Your task to perform on an android device: empty trash in the gmail app Image 0: 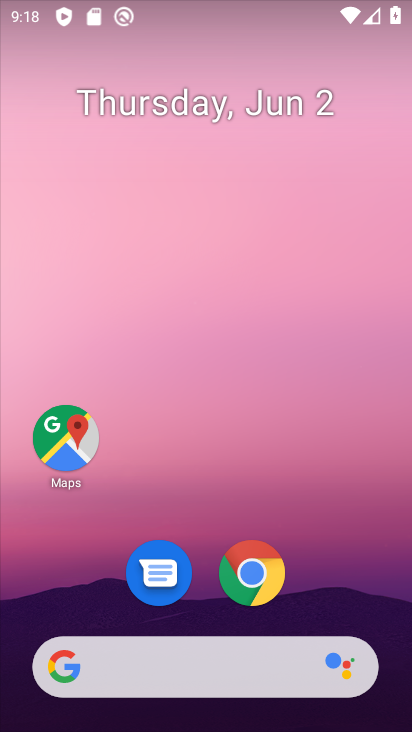
Step 0: drag from (343, 527) to (242, 124)
Your task to perform on an android device: empty trash in the gmail app Image 1: 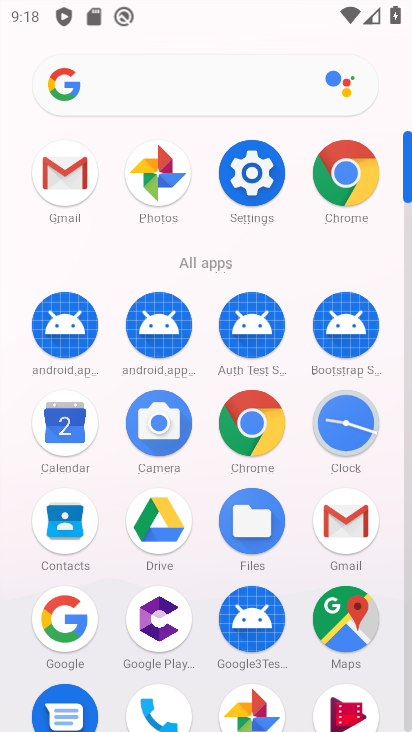
Step 1: click (72, 197)
Your task to perform on an android device: empty trash in the gmail app Image 2: 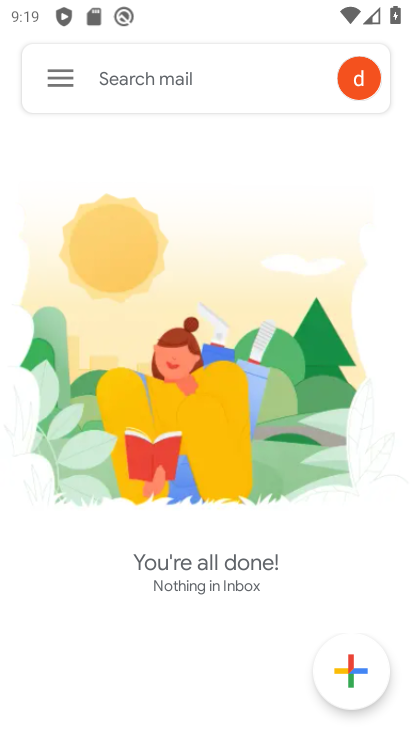
Step 2: click (56, 69)
Your task to perform on an android device: empty trash in the gmail app Image 3: 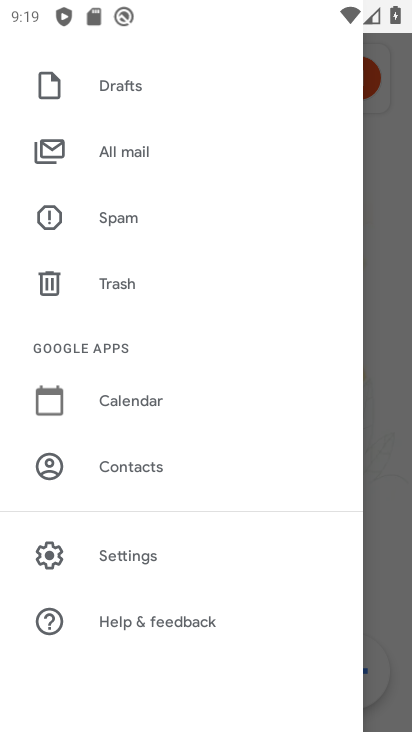
Step 3: click (112, 285)
Your task to perform on an android device: empty trash in the gmail app Image 4: 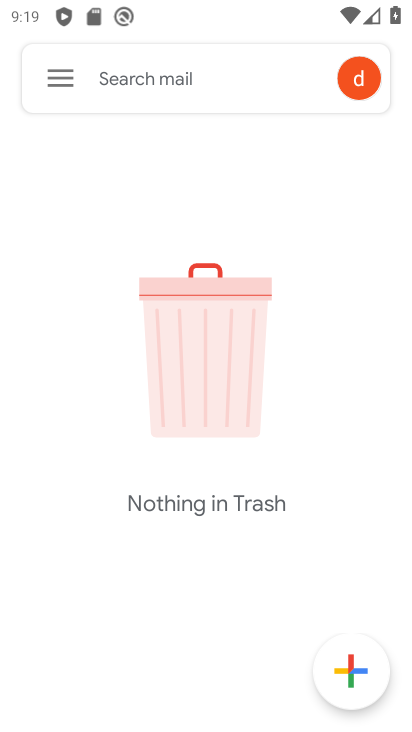
Step 4: task complete